Your task to perform on an android device: turn on showing notifications on the lock screen Image 0: 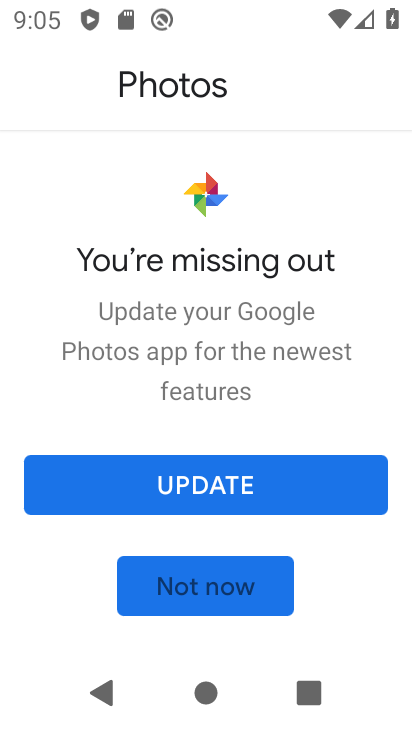
Step 0: click (214, 578)
Your task to perform on an android device: turn on showing notifications on the lock screen Image 1: 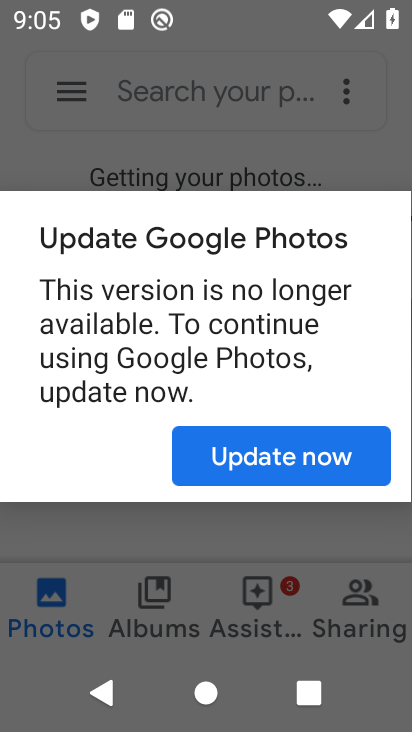
Step 1: click (291, 452)
Your task to perform on an android device: turn on showing notifications on the lock screen Image 2: 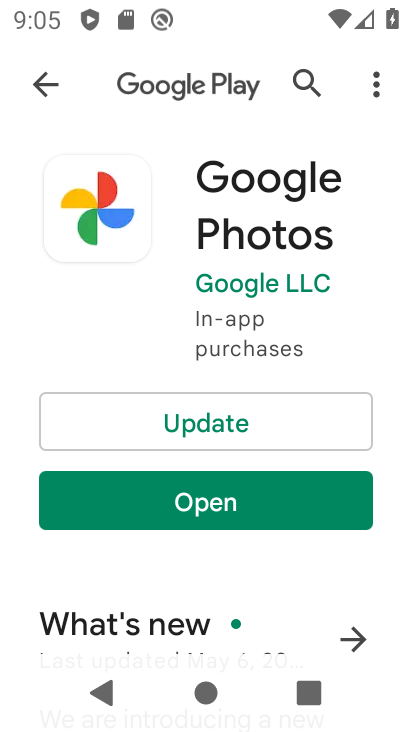
Step 2: click (232, 476)
Your task to perform on an android device: turn on showing notifications on the lock screen Image 3: 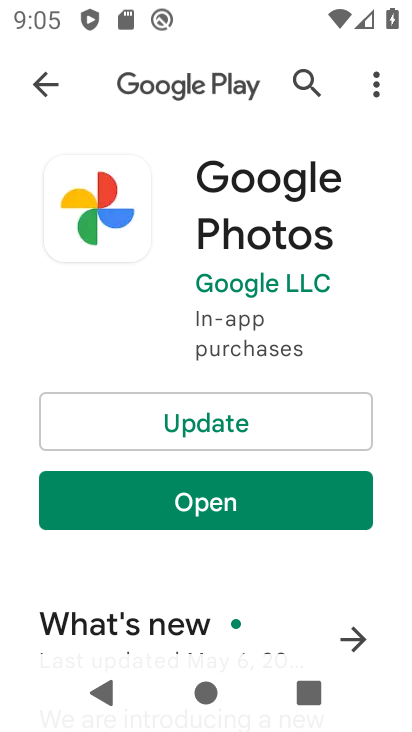
Step 3: click (239, 496)
Your task to perform on an android device: turn on showing notifications on the lock screen Image 4: 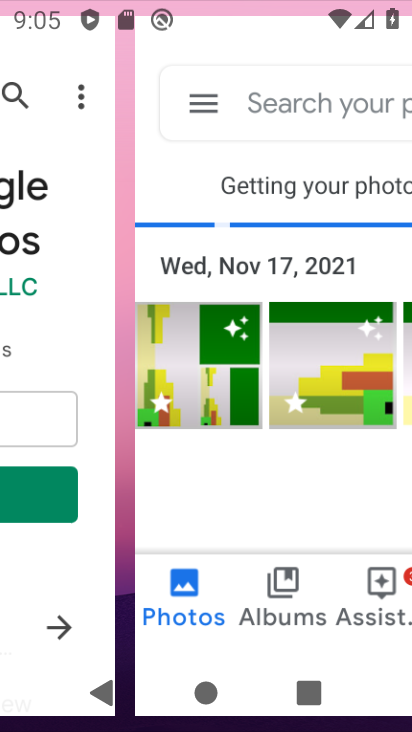
Step 4: click (245, 501)
Your task to perform on an android device: turn on showing notifications on the lock screen Image 5: 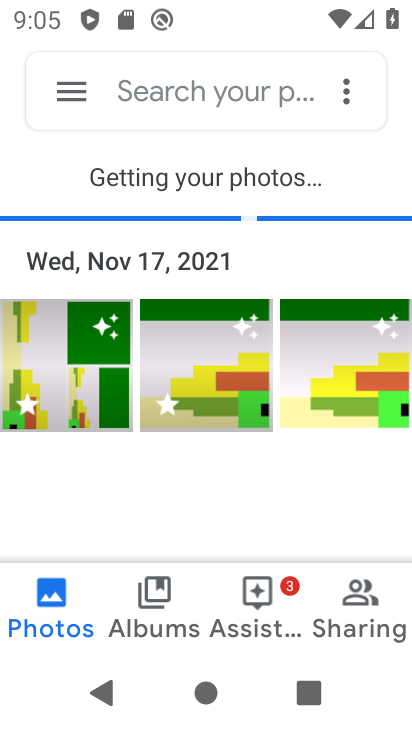
Step 5: click (248, 501)
Your task to perform on an android device: turn on showing notifications on the lock screen Image 6: 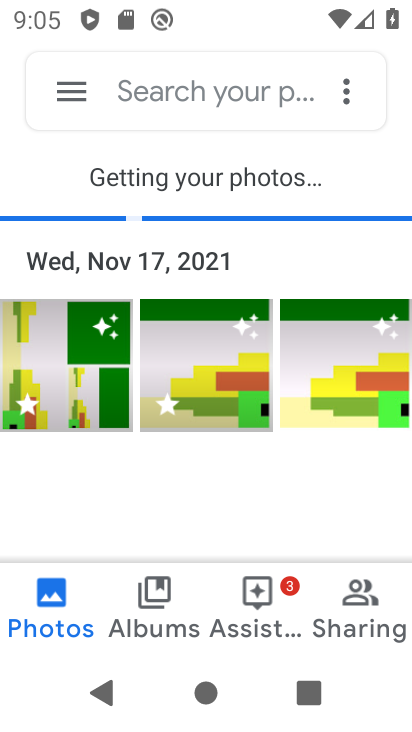
Step 6: press back button
Your task to perform on an android device: turn on showing notifications on the lock screen Image 7: 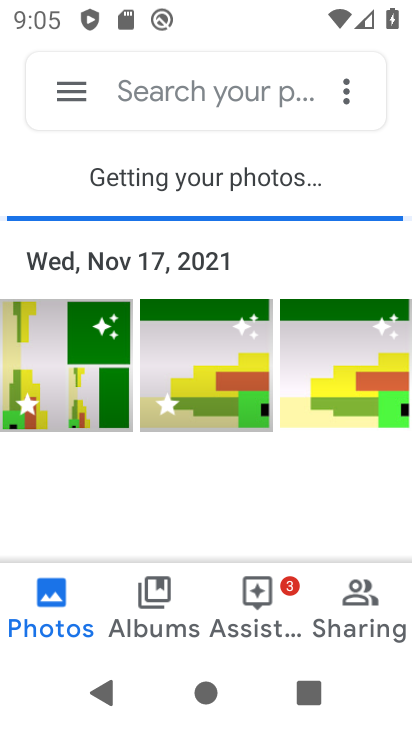
Step 7: press back button
Your task to perform on an android device: turn on showing notifications on the lock screen Image 8: 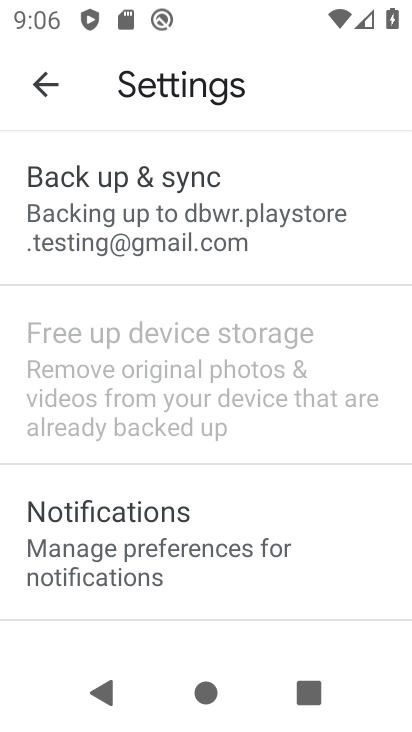
Step 8: press back button
Your task to perform on an android device: turn on showing notifications on the lock screen Image 9: 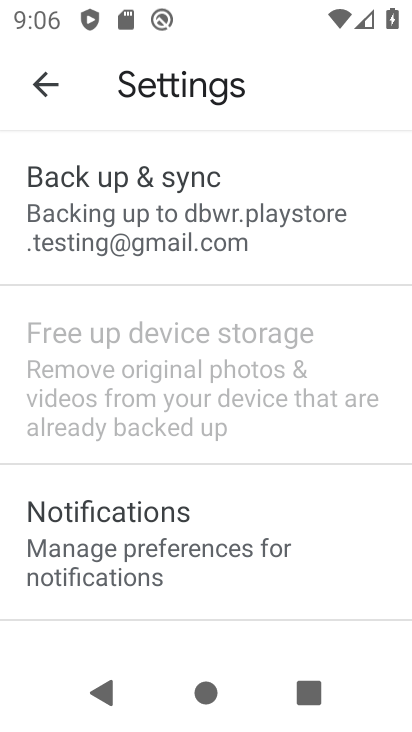
Step 9: press back button
Your task to perform on an android device: turn on showing notifications on the lock screen Image 10: 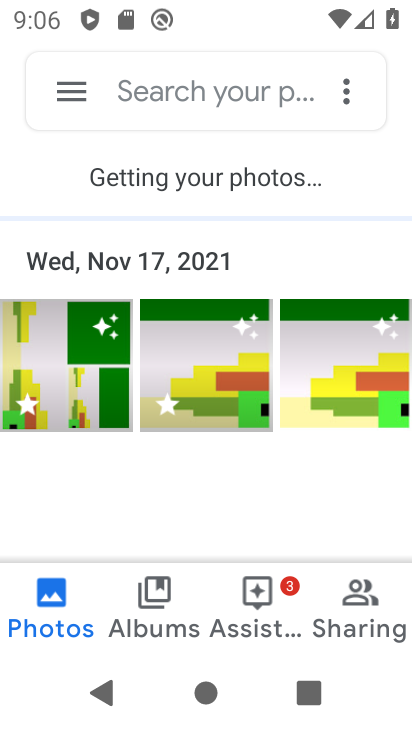
Step 10: press back button
Your task to perform on an android device: turn on showing notifications on the lock screen Image 11: 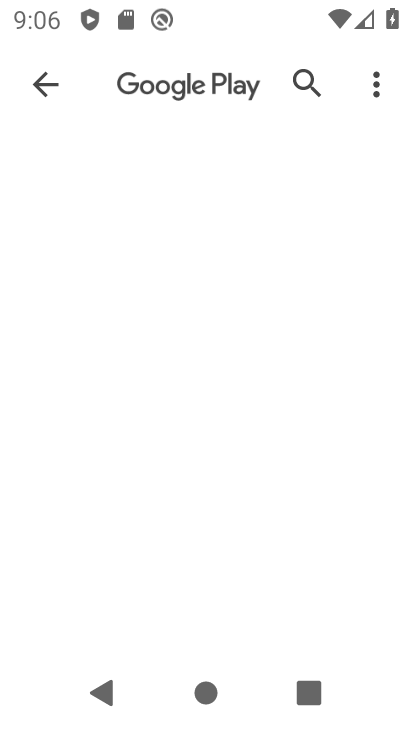
Step 11: press back button
Your task to perform on an android device: turn on showing notifications on the lock screen Image 12: 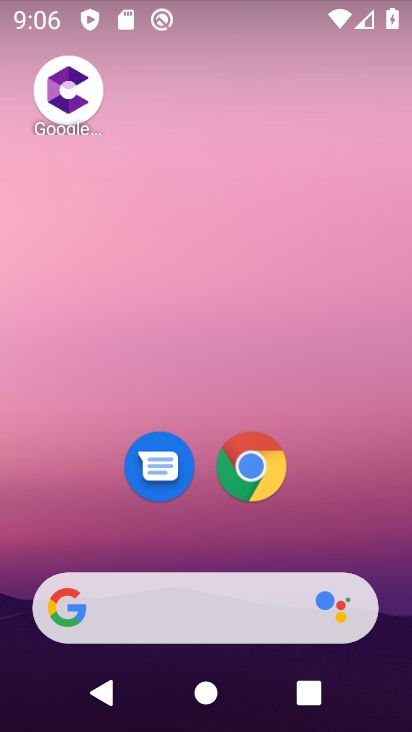
Step 12: drag from (366, 547) to (208, 56)
Your task to perform on an android device: turn on showing notifications on the lock screen Image 13: 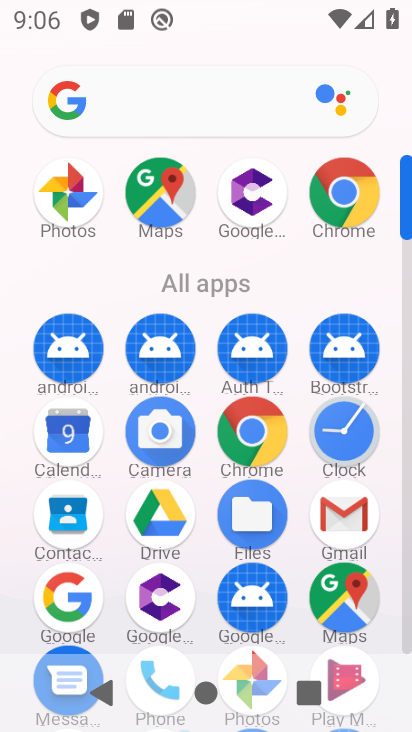
Step 13: drag from (267, 516) to (187, 74)
Your task to perform on an android device: turn on showing notifications on the lock screen Image 14: 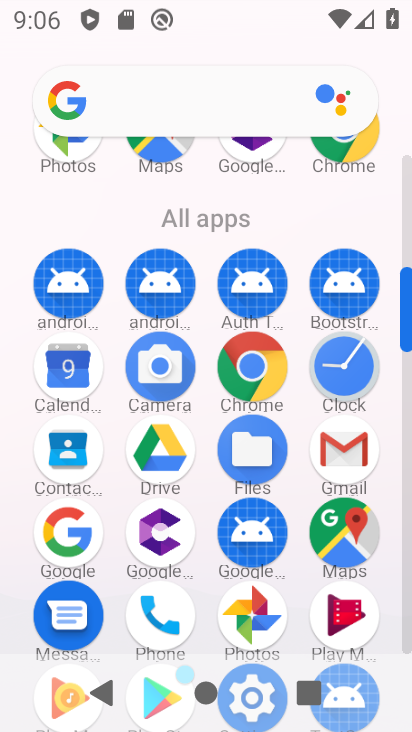
Step 14: drag from (307, 418) to (224, 53)
Your task to perform on an android device: turn on showing notifications on the lock screen Image 15: 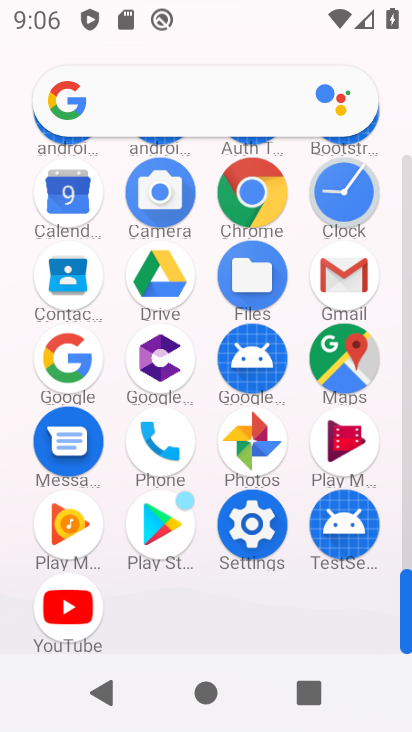
Step 15: click (258, 525)
Your task to perform on an android device: turn on showing notifications on the lock screen Image 16: 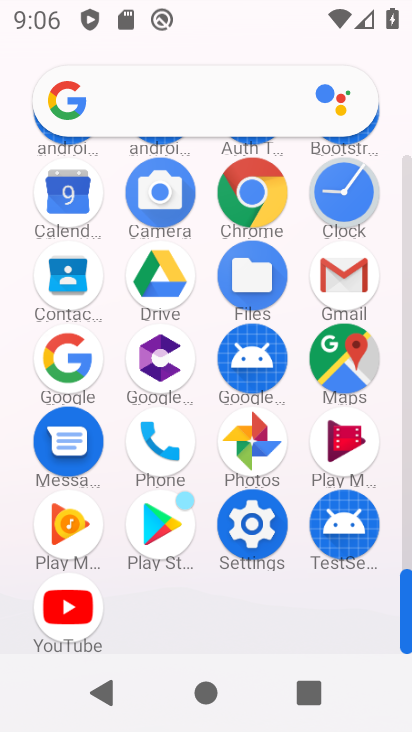
Step 16: click (256, 526)
Your task to perform on an android device: turn on showing notifications on the lock screen Image 17: 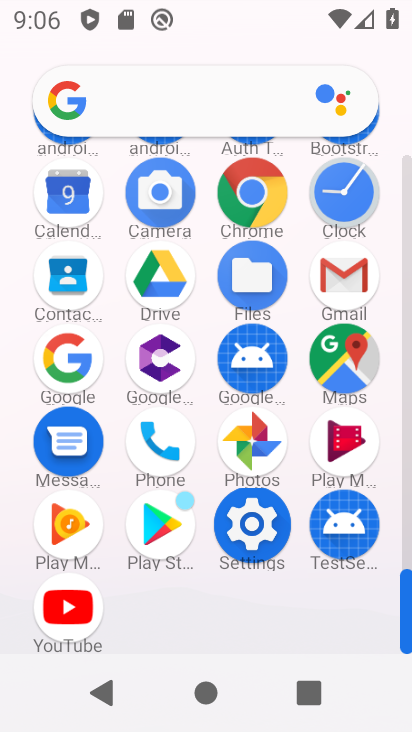
Step 17: click (256, 526)
Your task to perform on an android device: turn on showing notifications on the lock screen Image 18: 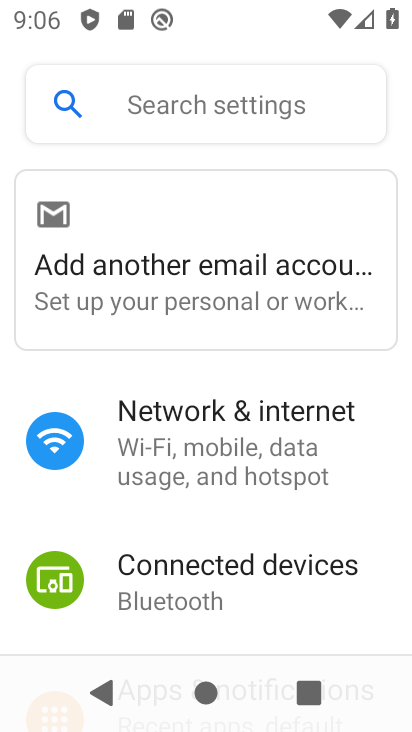
Step 18: drag from (213, 504) to (235, 231)
Your task to perform on an android device: turn on showing notifications on the lock screen Image 19: 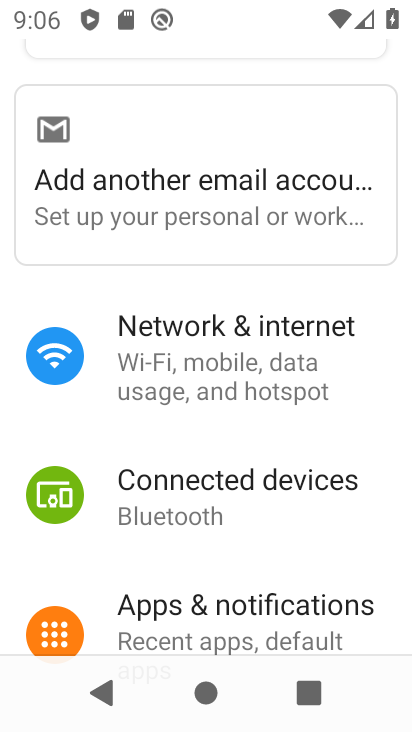
Step 19: click (230, 632)
Your task to perform on an android device: turn on showing notifications on the lock screen Image 20: 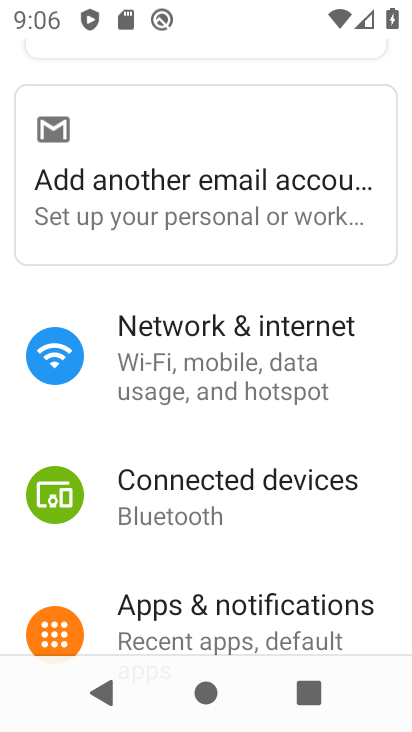
Step 20: click (228, 632)
Your task to perform on an android device: turn on showing notifications on the lock screen Image 21: 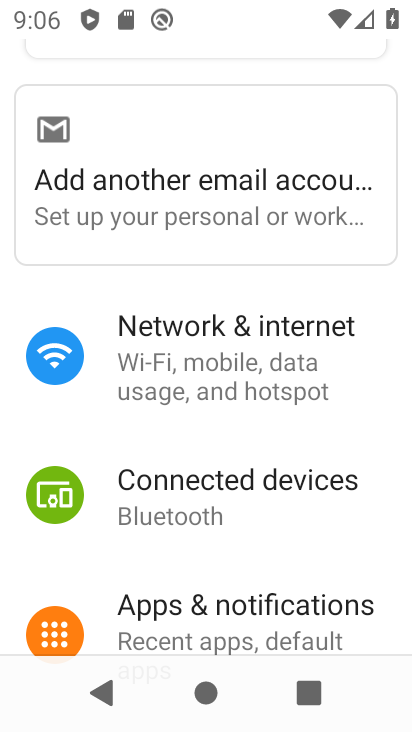
Step 21: click (228, 632)
Your task to perform on an android device: turn on showing notifications on the lock screen Image 22: 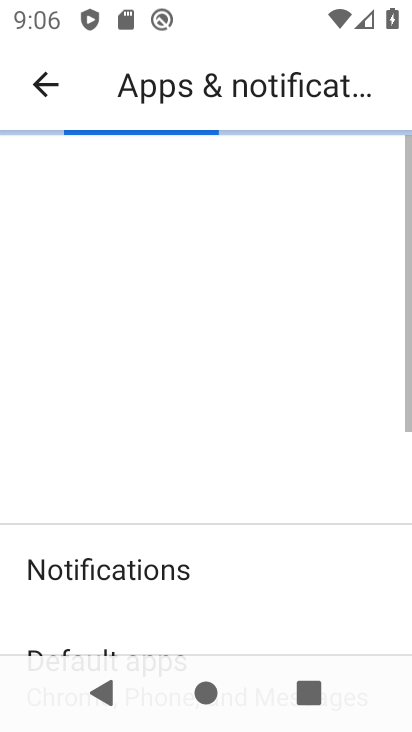
Step 22: click (221, 619)
Your task to perform on an android device: turn on showing notifications on the lock screen Image 23: 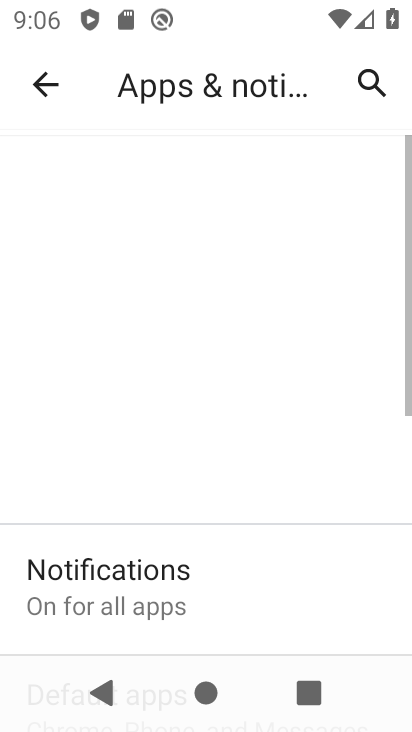
Step 23: click (124, 582)
Your task to perform on an android device: turn on showing notifications on the lock screen Image 24: 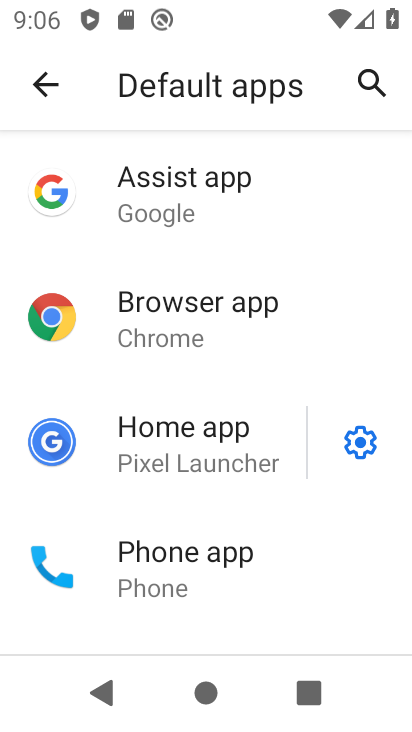
Step 24: click (39, 89)
Your task to perform on an android device: turn on showing notifications on the lock screen Image 25: 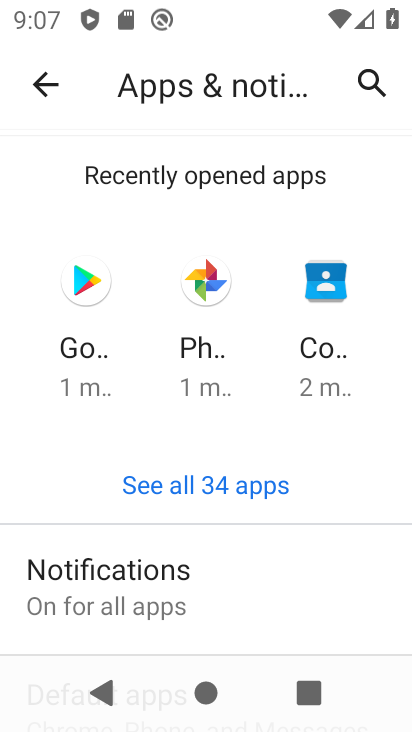
Step 25: click (127, 587)
Your task to perform on an android device: turn on showing notifications on the lock screen Image 26: 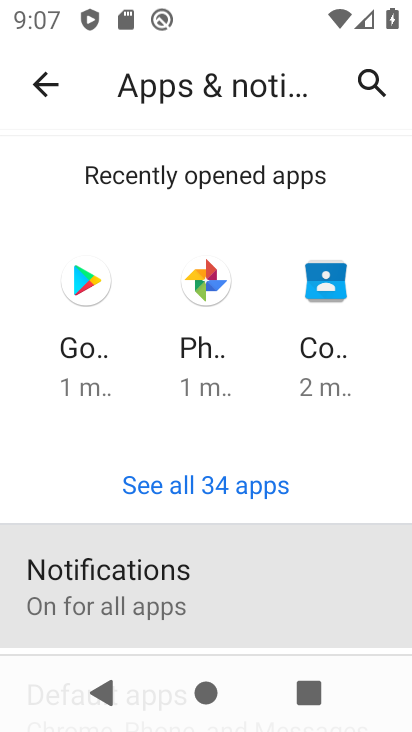
Step 26: click (126, 588)
Your task to perform on an android device: turn on showing notifications on the lock screen Image 27: 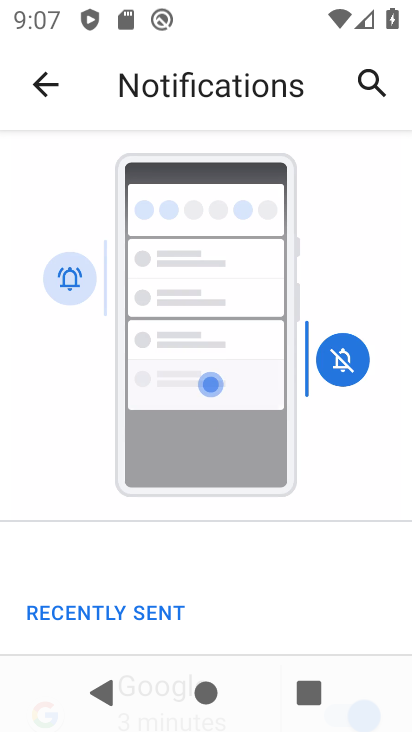
Step 27: drag from (227, 508) to (199, 13)
Your task to perform on an android device: turn on showing notifications on the lock screen Image 28: 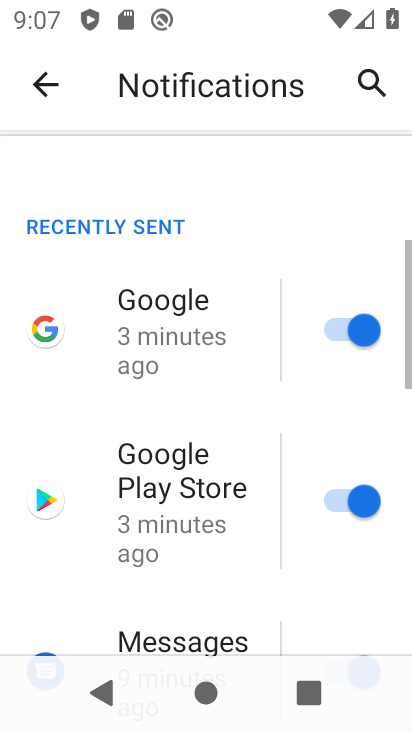
Step 28: drag from (231, 429) to (162, 57)
Your task to perform on an android device: turn on showing notifications on the lock screen Image 29: 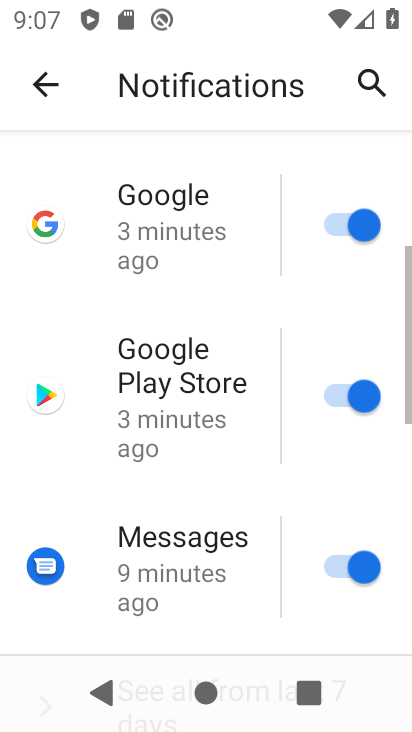
Step 29: drag from (239, 554) to (221, 27)
Your task to perform on an android device: turn on showing notifications on the lock screen Image 30: 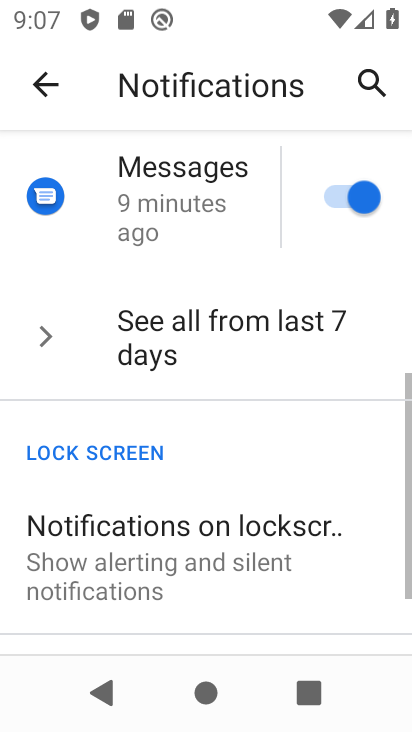
Step 30: drag from (243, 387) to (211, 18)
Your task to perform on an android device: turn on showing notifications on the lock screen Image 31: 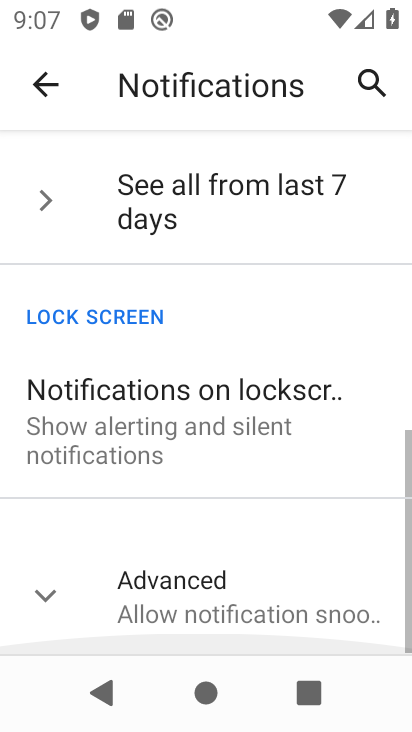
Step 31: click (93, 196)
Your task to perform on an android device: turn on showing notifications on the lock screen Image 32: 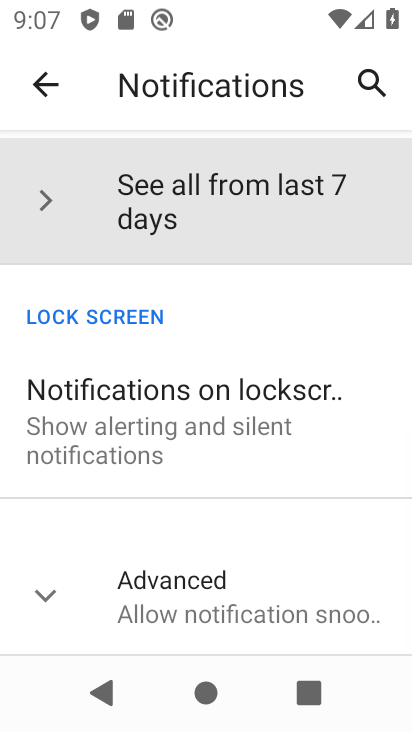
Step 32: click (173, 406)
Your task to perform on an android device: turn on showing notifications on the lock screen Image 33: 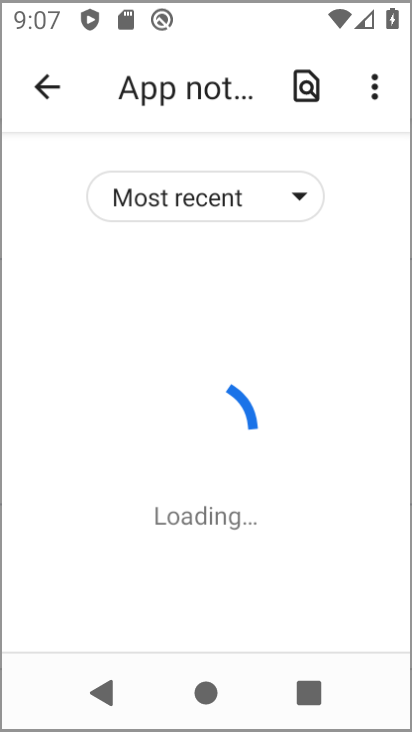
Step 33: click (174, 406)
Your task to perform on an android device: turn on showing notifications on the lock screen Image 34: 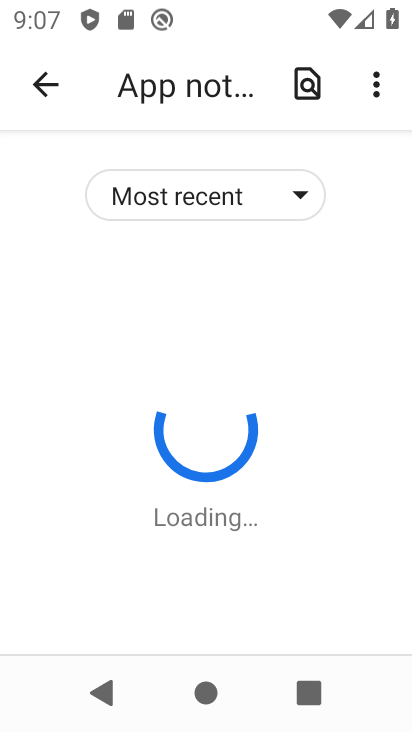
Step 34: click (175, 408)
Your task to perform on an android device: turn on showing notifications on the lock screen Image 35: 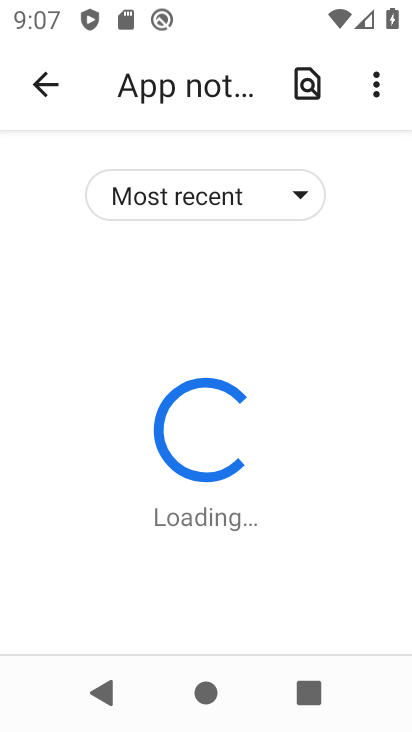
Step 35: click (175, 408)
Your task to perform on an android device: turn on showing notifications on the lock screen Image 36: 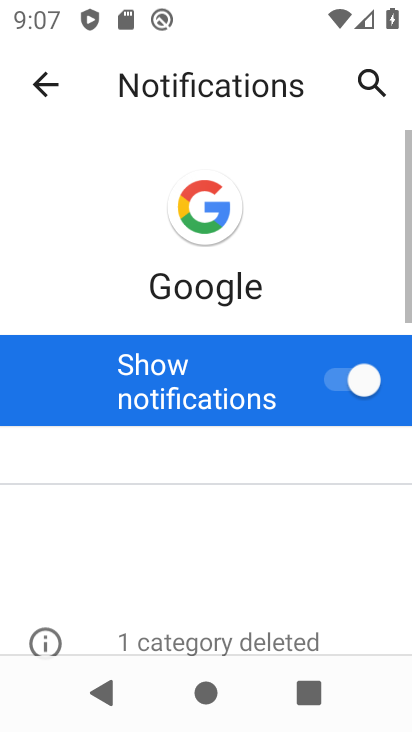
Step 36: click (104, 128)
Your task to perform on an android device: turn on showing notifications on the lock screen Image 37: 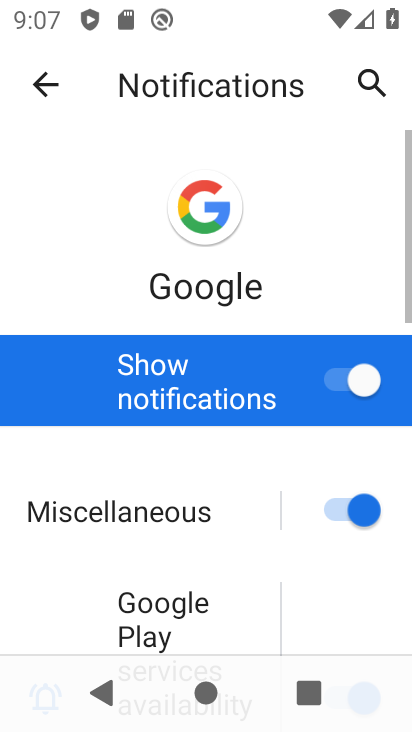
Step 37: drag from (170, 445) to (167, 76)
Your task to perform on an android device: turn on showing notifications on the lock screen Image 38: 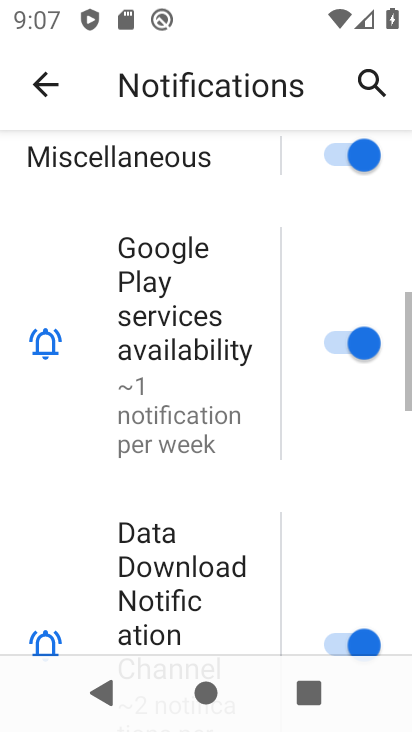
Step 38: drag from (226, 275) to (177, 11)
Your task to perform on an android device: turn on showing notifications on the lock screen Image 39: 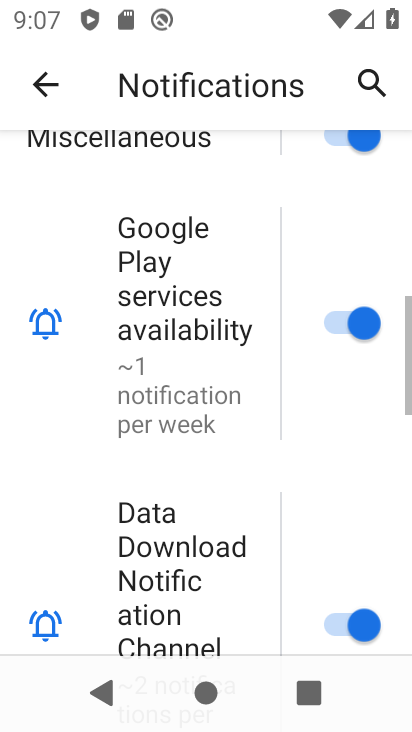
Step 39: drag from (179, 343) to (171, 1)
Your task to perform on an android device: turn on showing notifications on the lock screen Image 40: 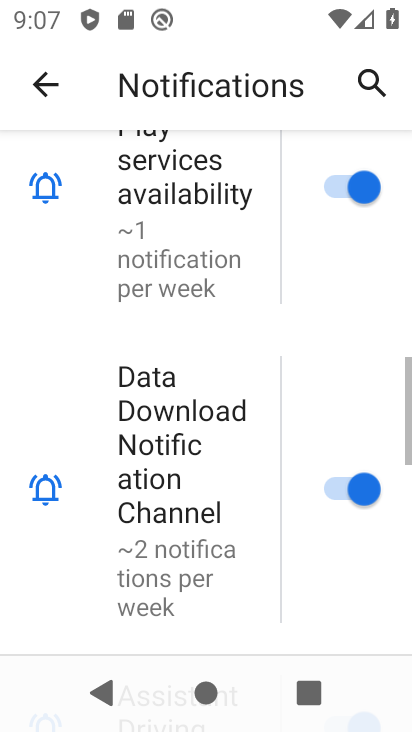
Step 40: drag from (234, 503) to (190, 93)
Your task to perform on an android device: turn on showing notifications on the lock screen Image 41: 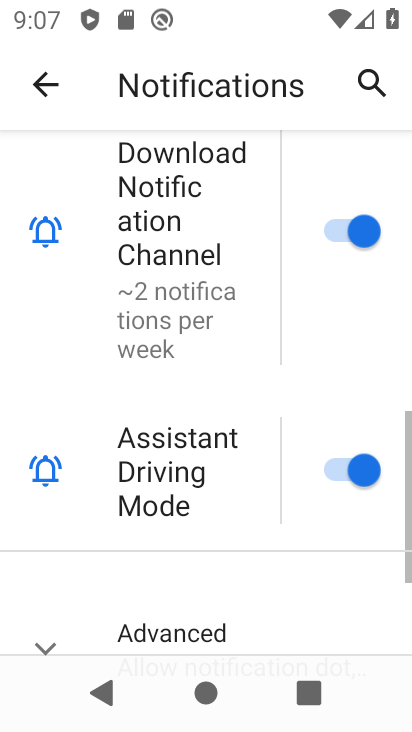
Step 41: drag from (212, 513) to (170, 133)
Your task to perform on an android device: turn on showing notifications on the lock screen Image 42: 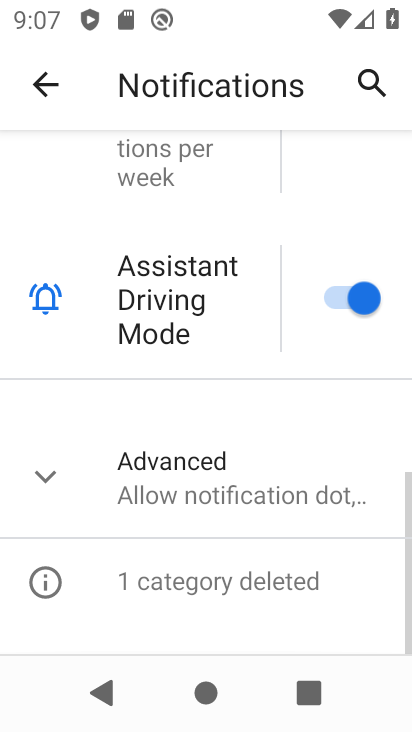
Step 42: drag from (141, 292) to (241, 622)
Your task to perform on an android device: turn on showing notifications on the lock screen Image 43: 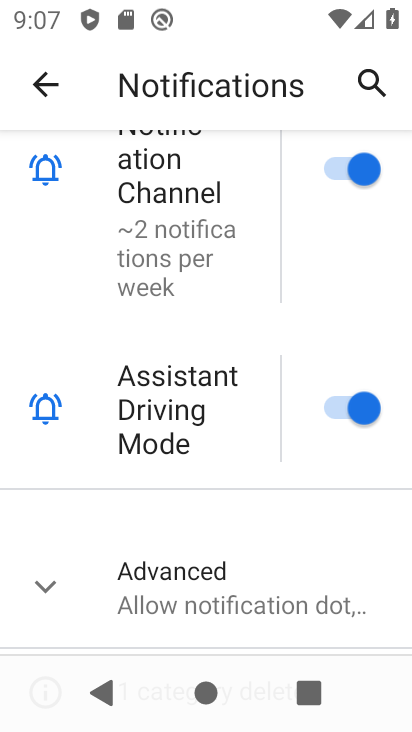
Step 43: drag from (199, 205) to (339, 614)
Your task to perform on an android device: turn on showing notifications on the lock screen Image 44: 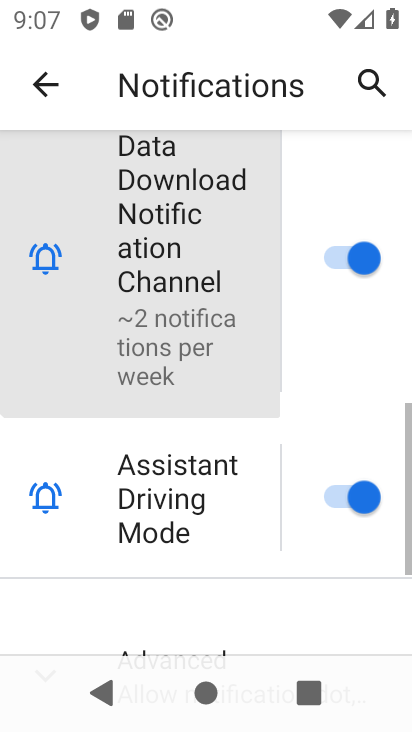
Step 44: drag from (205, 282) to (220, 539)
Your task to perform on an android device: turn on showing notifications on the lock screen Image 45: 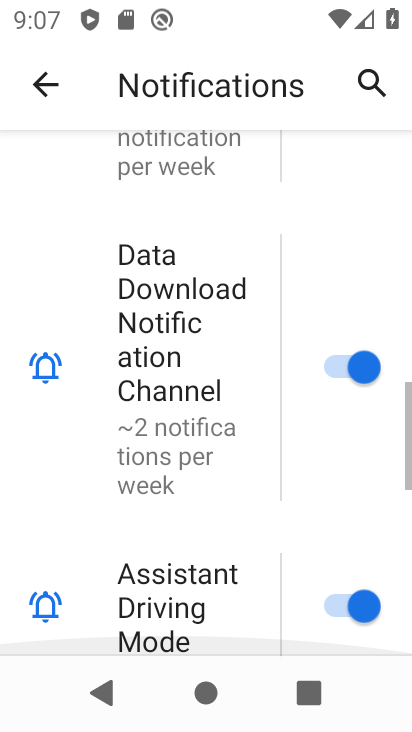
Step 45: drag from (89, 247) to (198, 693)
Your task to perform on an android device: turn on showing notifications on the lock screen Image 46: 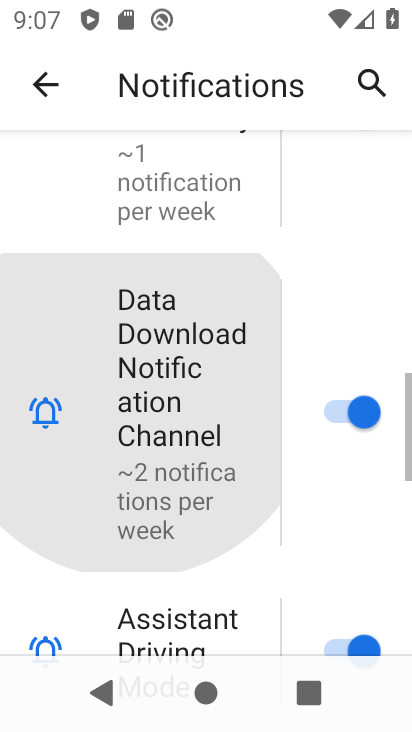
Step 46: drag from (181, 620) to (209, 685)
Your task to perform on an android device: turn on showing notifications on the lock screen Image 47: 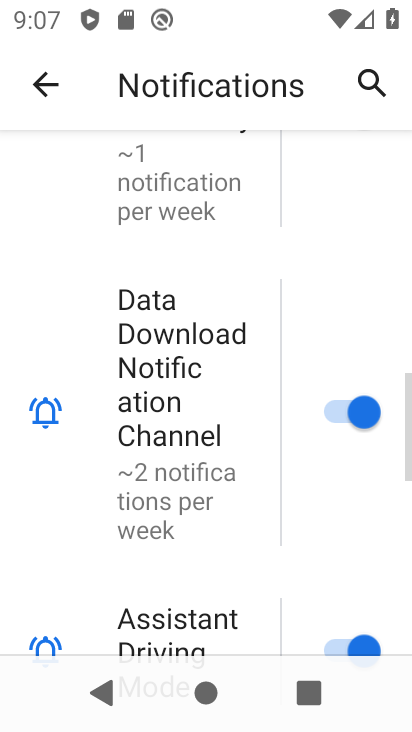
Step 47: drag from (136, 289) to (249, 675)
Your task to perform on an android device: turn on showing notifications on the lock screen Image 48: 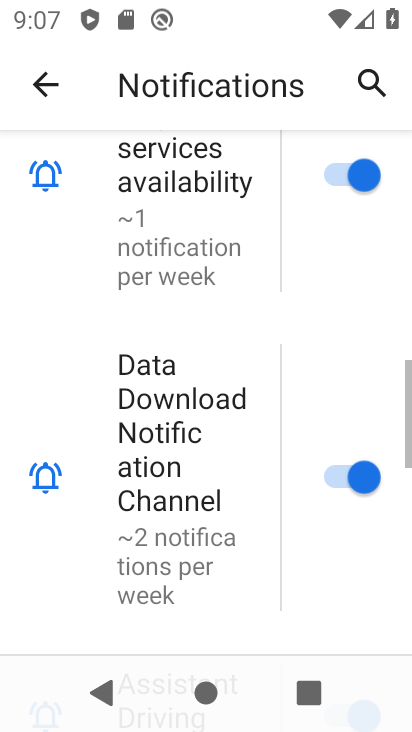
Step 48: drag from (168, 254) to (258, 647)
Your task to perform on an android device: turn on showing notifications on the lock screen Image 49: 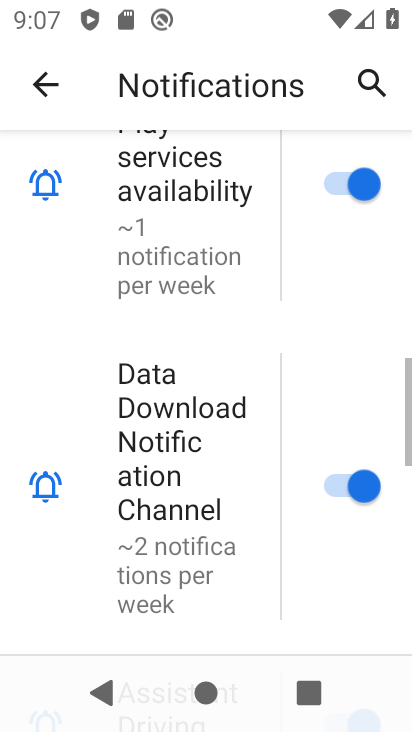
Step 49: drag from (119, 241) to (220, 623)
Your task to perform on an android device: turn on showing notifications on the lock screen Image 50: 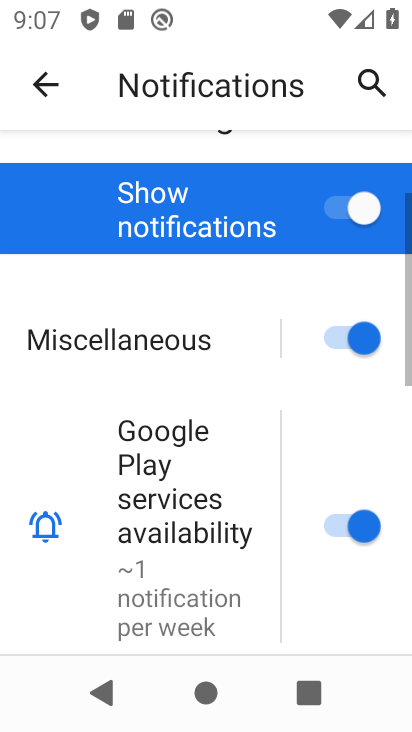
Step 50: drag from (149, 255) to (224, 666)
Your task to perform on an android device: turn on showing notifications on the lock screen Image 51: 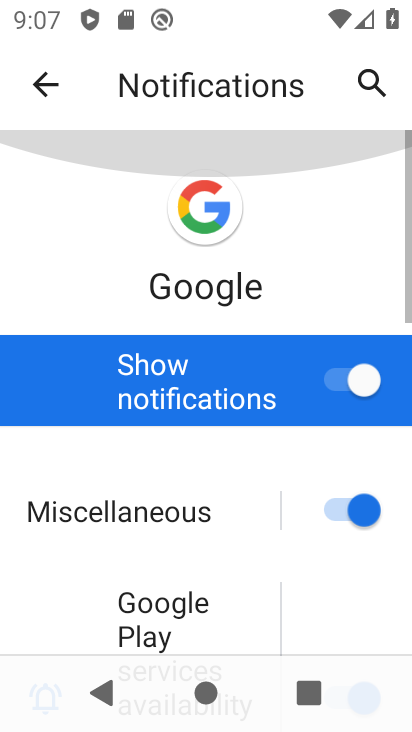
Step 51: drag from (206, 450) to (243, 609)
Your task to perform on an android device: turn on showing notifications on the lock screen Image 52: 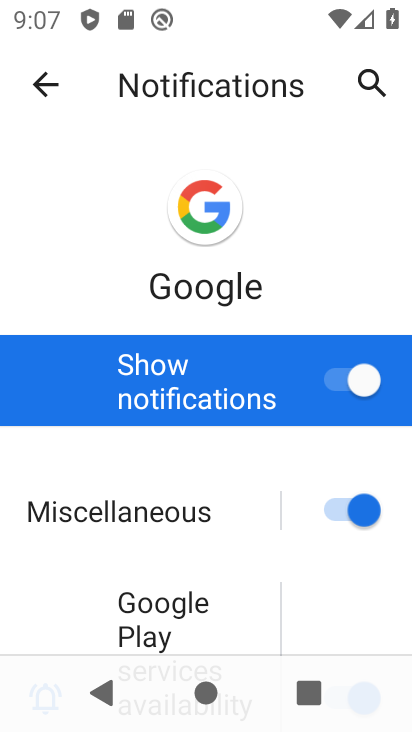
Step 52: click (38, 87)
Your task to perform on an android device: turn on showing notifications on the lock screen Image 53: 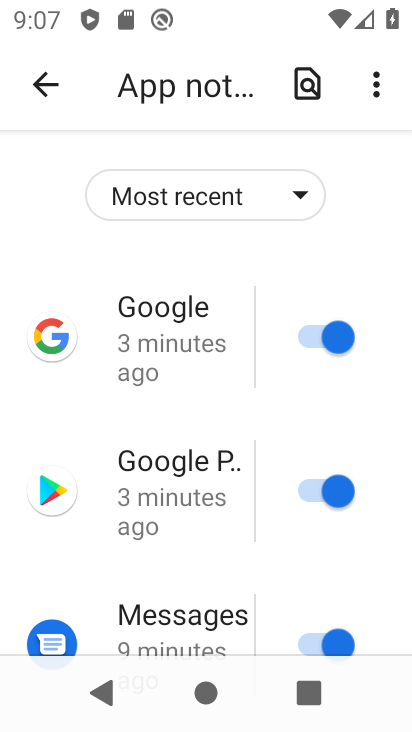
Step 53: click (41, 86)
Your task to perform on an android device: turn on showing notifications on the lock screen Image 54: 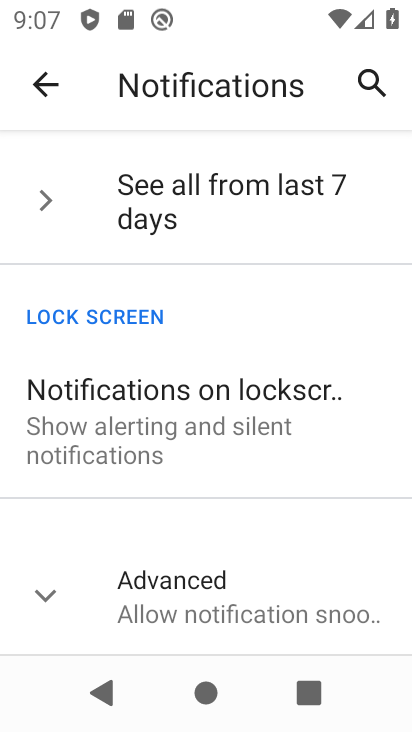
Step 54: click (206, 414)
Your task to perform on an android device: turn on showing notifications on the lock screen Image 55: 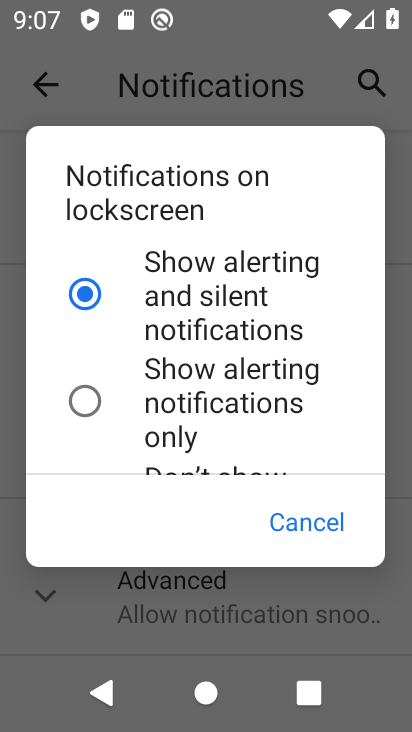
Step 55: task complete